Your task to perform on an android device: turn vacation reply on in the gmail app Image 0: 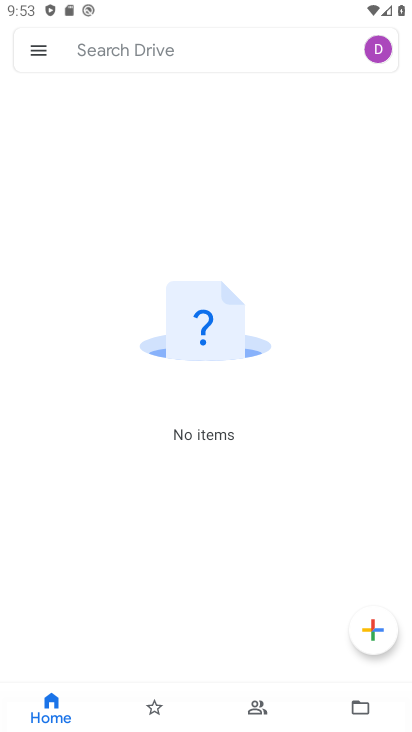
Step 0: press home button
Your task to perform on an android device: turn vacation reply on in the gmail app Image 1: 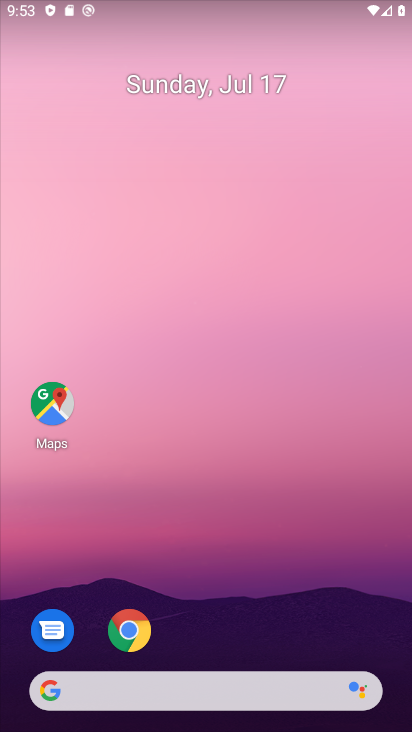
Step 1: drag from (342, 618) to (359, 45)
Your task to perform on an android device: turn vacation reply on in the gmail app Image 2: 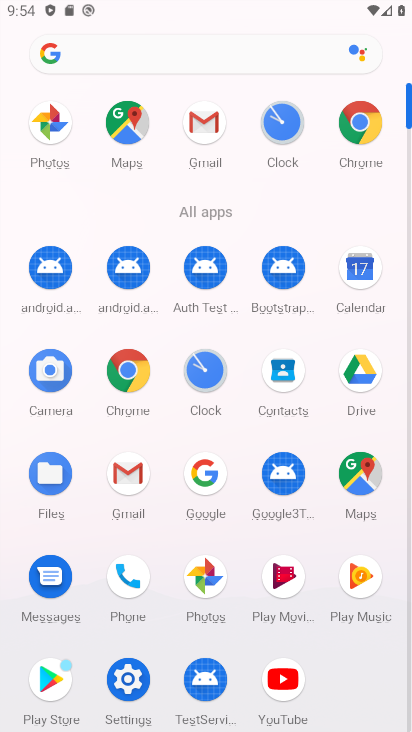
Step 2: click (119, 476)
Your task to perform on an android device: turn vacation reply on in the gmail app Image 3: 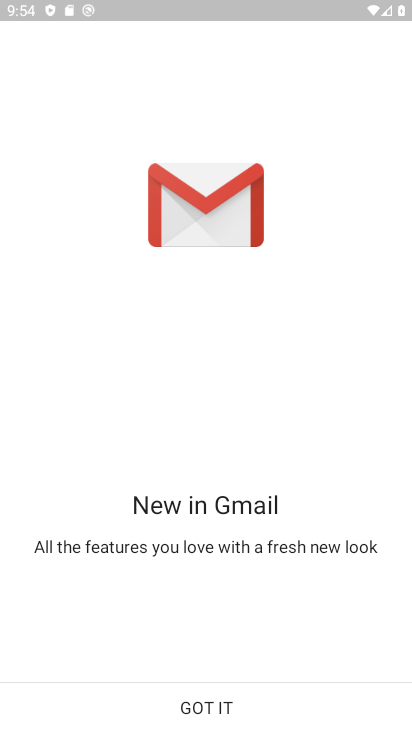
Step 3: click (235, 702)
Your task to perform on an android device: turn vacation reply on in the gmail app Image 4: 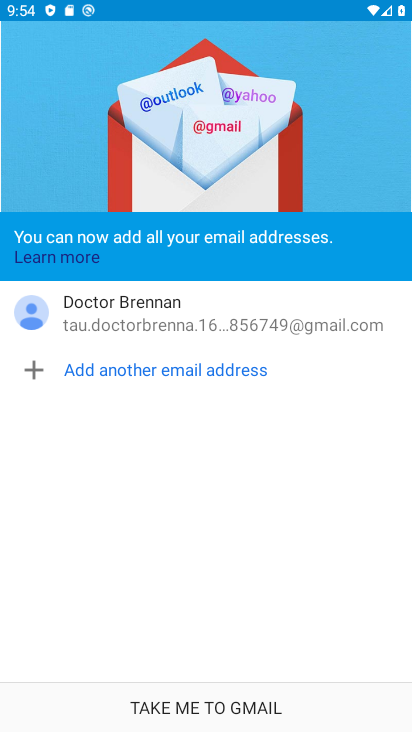
Step 4: click (236, 709)
Your task to perform on an android device: turn vacation reply on in the gmail app Image 5: 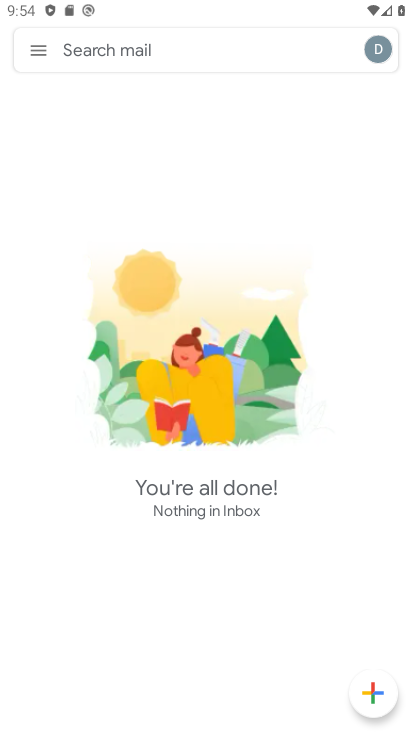
Step 5: click (37, 45)
Your task to perform on an android device: turn vacation reply on in the gmail app Image 6: 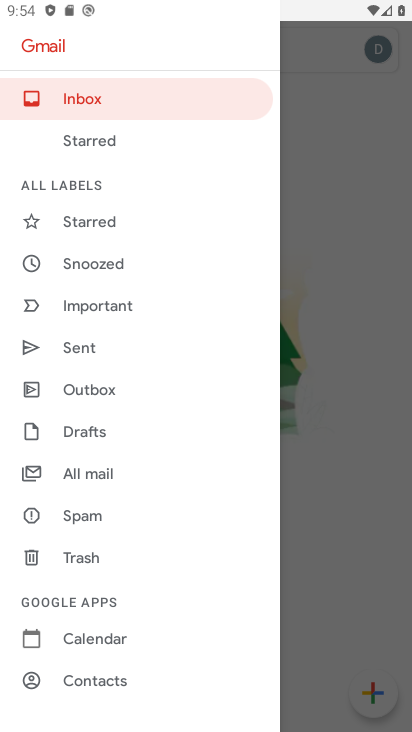
Step 6: drag from (197, 403) to (198, 290)
Your task to perform on an android device: turn vacation reply on in the gmail app Image 7: 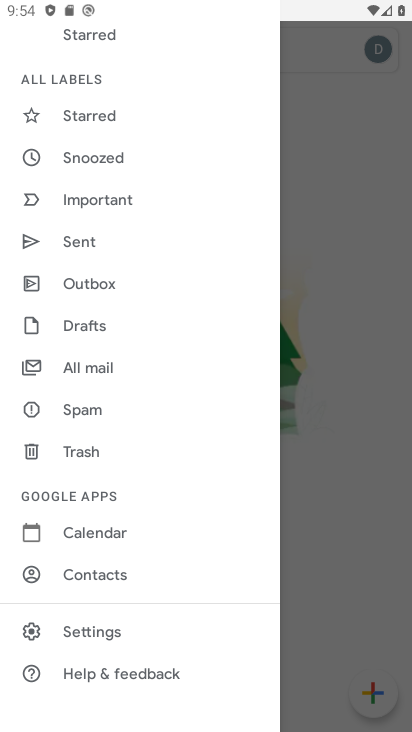
Step 7: drag from (204, 465) to (211, 335)
Your task to perform on an android device: turn vacation reply on in the gmail app Image 8: 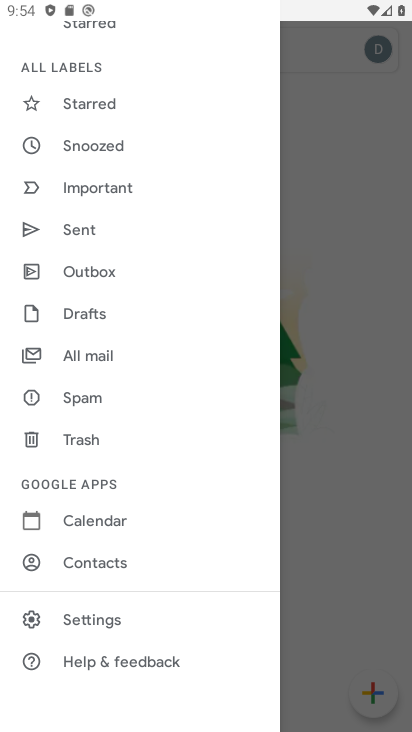
Step 8: drag from (196, 227) to (192, 340)
Your task to perform on an android device: turn vacation reply on in the gmail app Image 9: 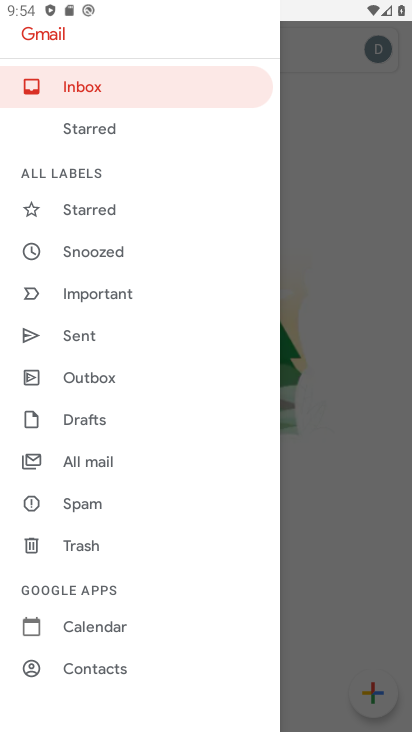
Step 9: drag from (191, 194) to (194, 389)
Your task to perform on an android device: turn vacation reply on in the gmail app Image 10: 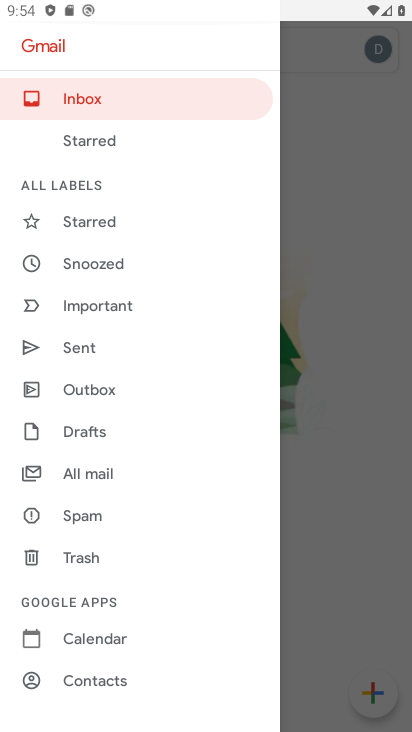
Step 10: drag from (211, 482) to (221, 291)
Your task to perform on an android device: turn vacation reply on in the gmail app Image 11: 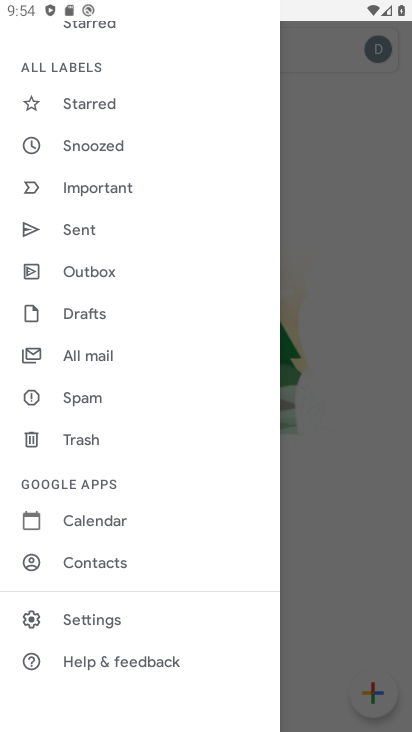
Step 11: drag from (214, 545) to (212, 425)
Your task to perform on an android device: turn vacation reply on in the gmail app Image 12: 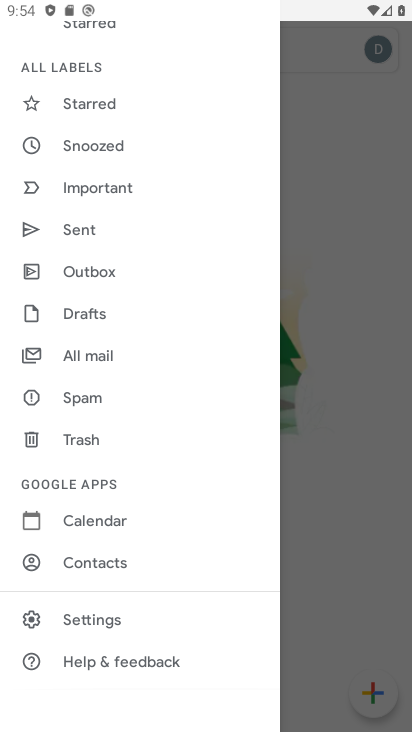
Step 12: click (140, 629)
Your task to perform on an android device: turn vacation reply on in the gmail app Image 13: 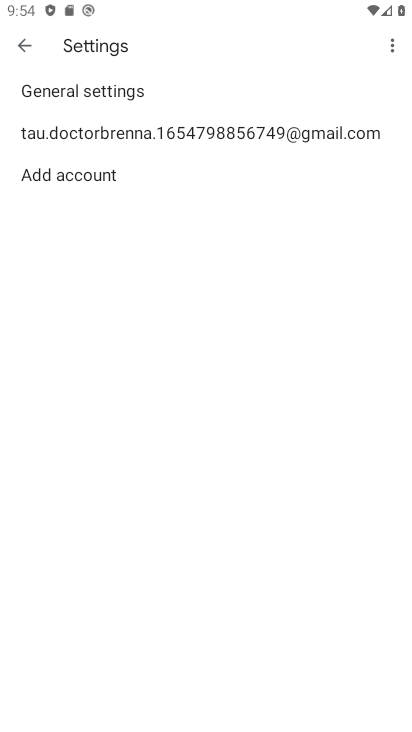
Step 13: click (219, 134)
Your task to perform on an android device: turn vacation reply on in the gmail app Image 14: 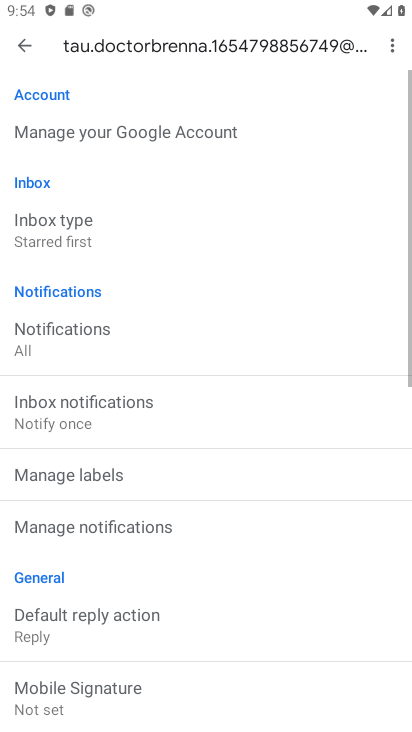
Step 14: drag from (232, 472) to (244, 340)
Your task to perform on an android device: turn vacation reply on in the gmail app Image 15: 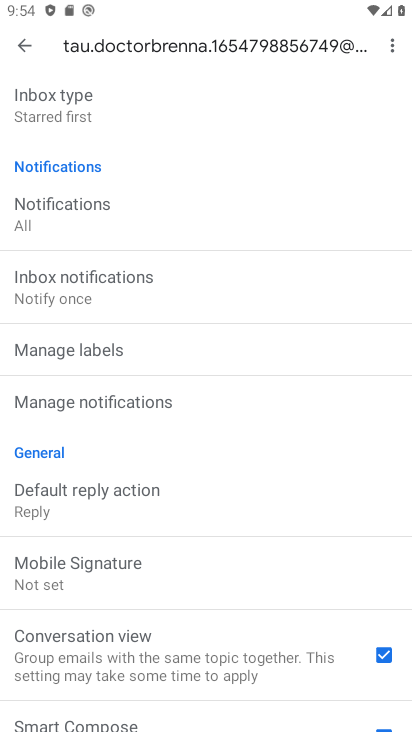
Step 15: drag from (257, 500) to (262, 373)
Your task to perform on an android device: turn vacation reply on in the gmail app Image 16: 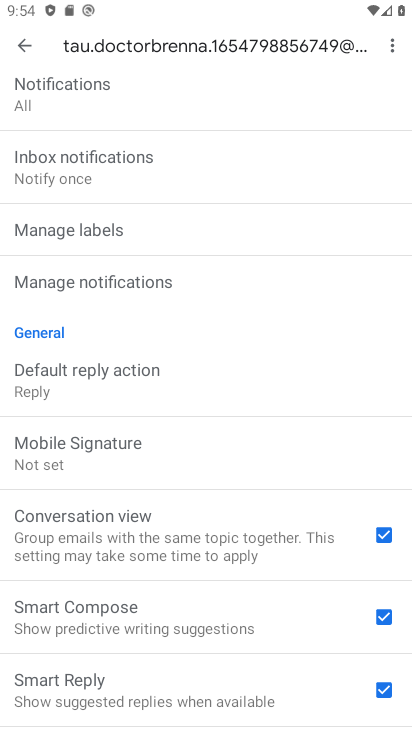
Step 16: drag from (286, 608) to (291, 467)
Your task to perform on an android device: turn vacation reply on in the gmail app Image 17: 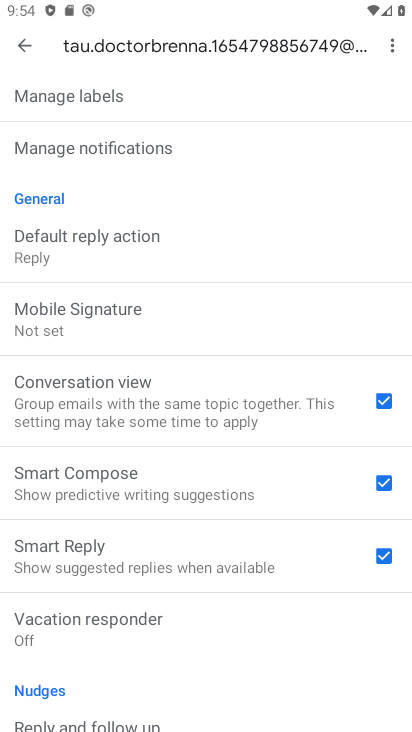
Step 17: drag from (302, 639) to (312, 531)
Your task to perform on an android device: turn vacation reply on in the gmail app Image 18: 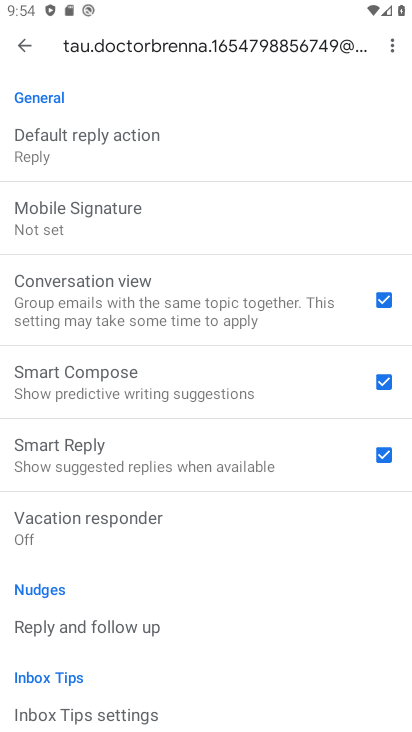
Step 18: drag from (294, 598) to (291, 469)
Your task to perform on an android device: turn vacation reply on in the gmail app Image 19: 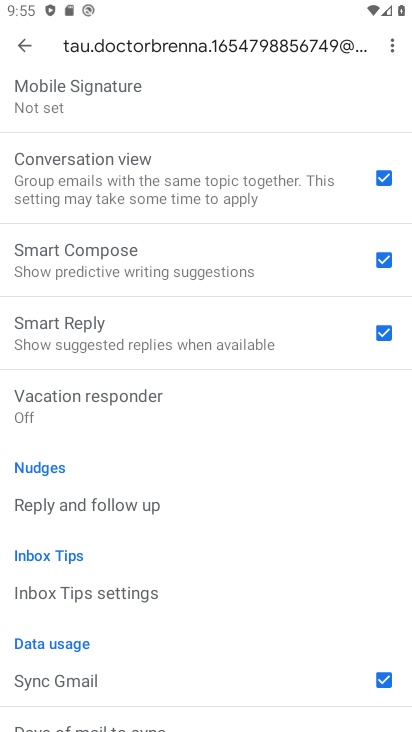
Step 19: click (187, 412)
Your task to perform on an android device: turn vacation reply on in the gmail app Image 20: 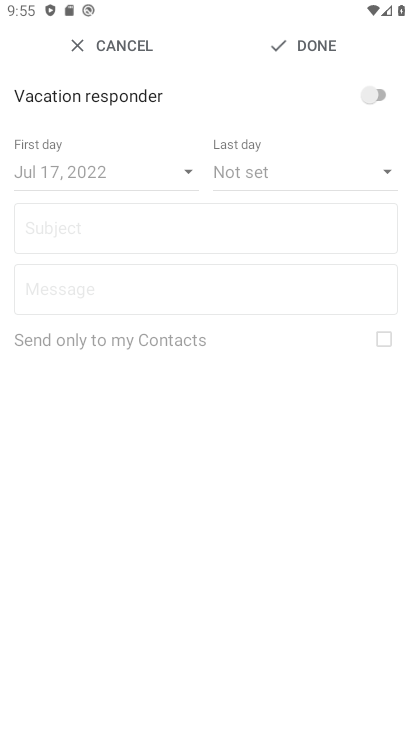
Step 20: click (358, 91)
Your task to perform on an android device: turn vacation reply on in the gmail app Image 21: 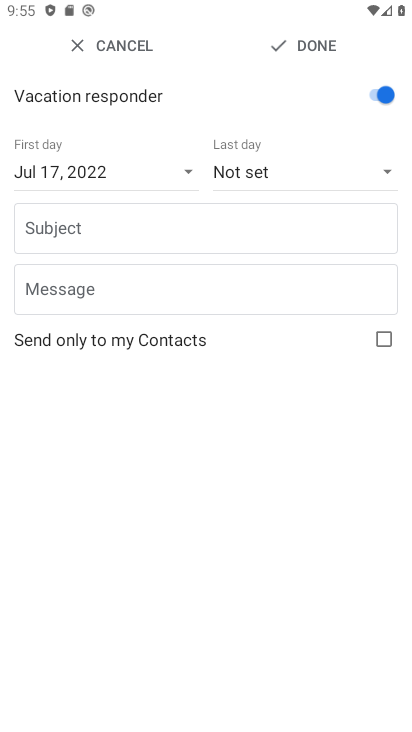
Step 21: task complete